Your task to perform on an android device: Search for "asus rog" on newegg.com, select the first entry, add it to the cart, then select checkout. Image 0: 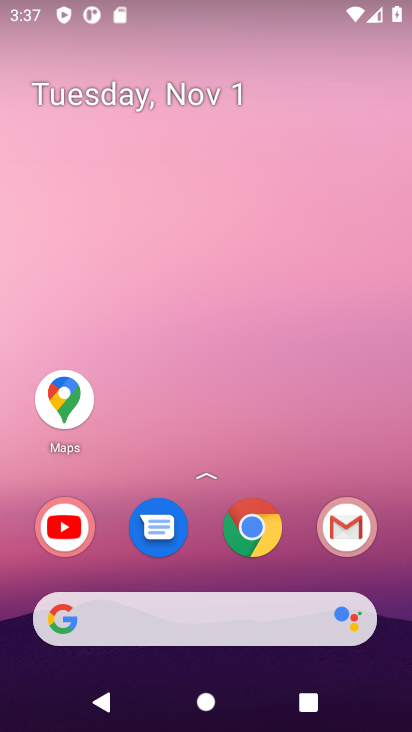
Step 0: click (180, 628)
Your task to perform on an android device: Search for "asus rog" on newegg.com, select the first entry, add it to the cart, then select checkout. Image 1: 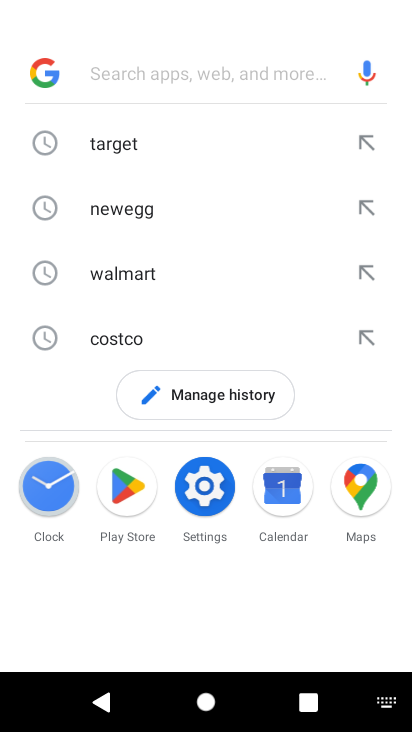
Step 1: click (160, 220)
Your task to perform on an android device: Search for "asus rog" on newegg.com, select the first entry, add it to the cart, then select checkout. Image 2: 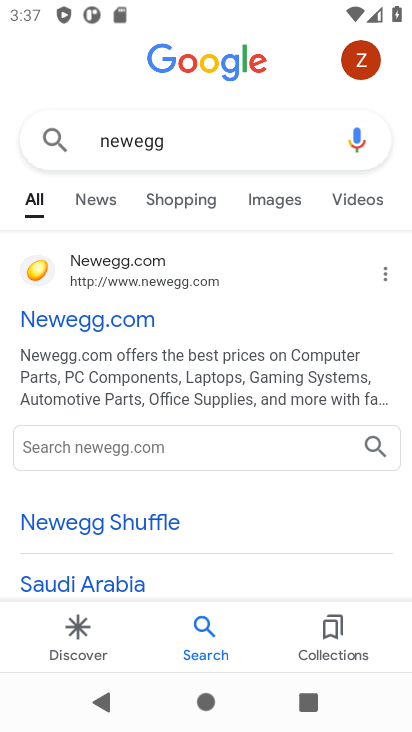
Step 2: click (142, 267)
Your task to perform on an android device: Search for "asus rog" on newegg.com, select the first entry, add it to the cart, then select checkout. Image 3: 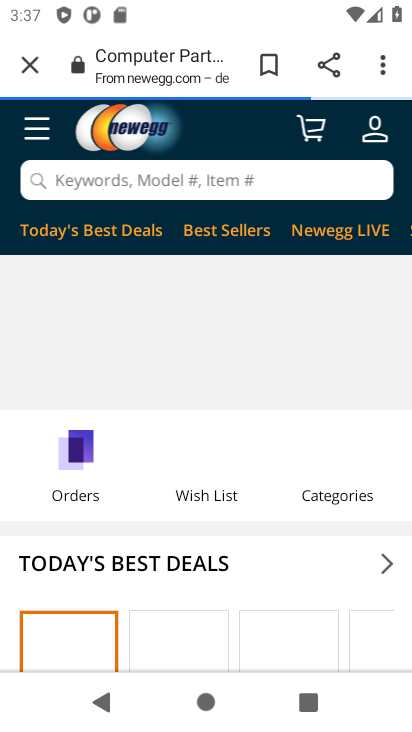
Step 3: click (133, 181)
Your task to perform on an android device: Search for "asus rog" on newegg.com, select the first entry, add it to the cart, then select checkout. Image 4: 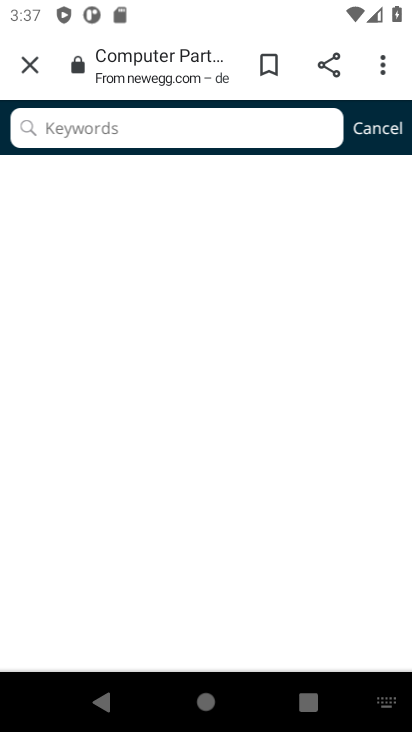
Step 4: type "asus rog"
Your task to perform on an android device: Search for "asus rog" on newegg.com, select the first entry, add it to the cart, then select checkout. Image 5: 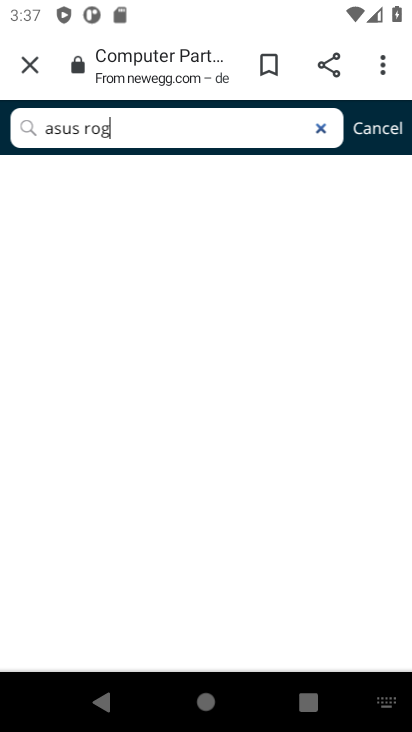
Step 5: type ""
Your task to perform on an android device: Search for "asus rog" on newegg.com, select the first entry, add it to the cart, then select checkout. Image 6: 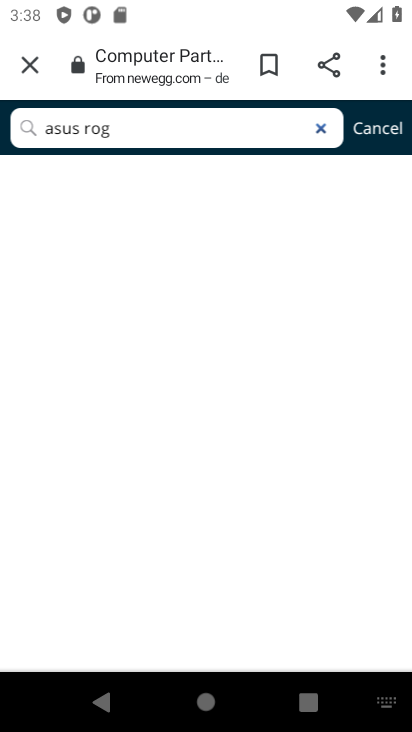
Step 6: press enter
Your task to perform on an android device: Search for "asus rog" on newegg.com, select the first entry, add it to the cart, then select checkout. Image 7: 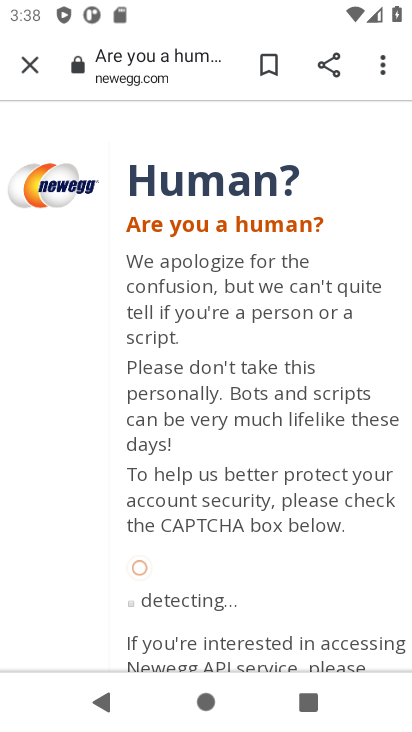
Step 7: task complete